Your task to perform on an android device: Open settings Image 0: 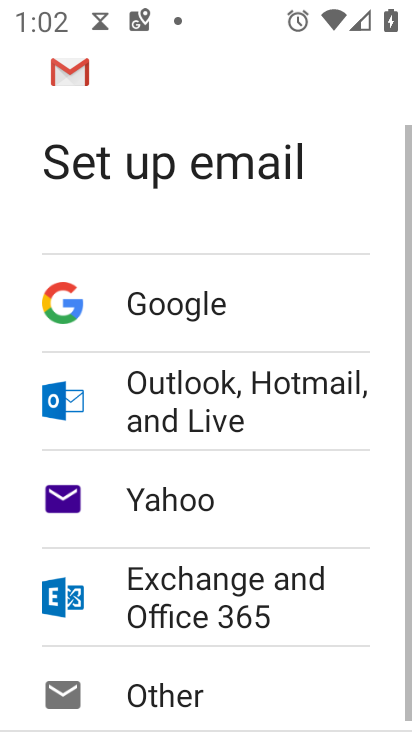
Step 0: press home button
Your task to perform on an android device: Open settings Image 1: 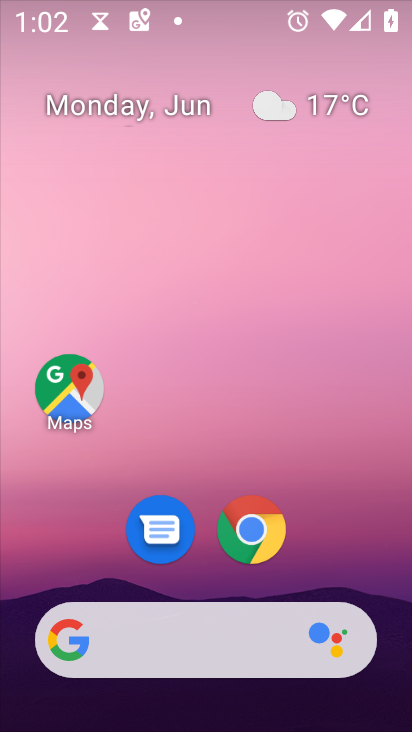
Step 1: drag from (358, 556) to (338, 46)
Your task to perform on an android device: Open settings Image 2: 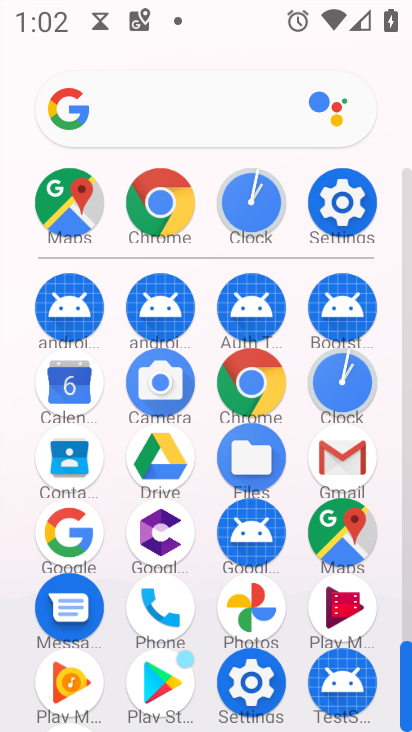
Step 2: click (347, 207)
Your task to perform on an android device: Open settings Image 3: 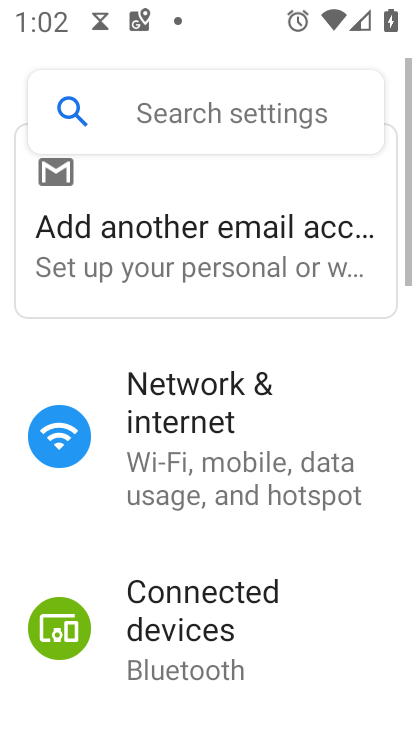
Step 3: task complete